Your task to perform on an android device: open app "Speedtest by Ookla" (install if not already installed) Image 0: 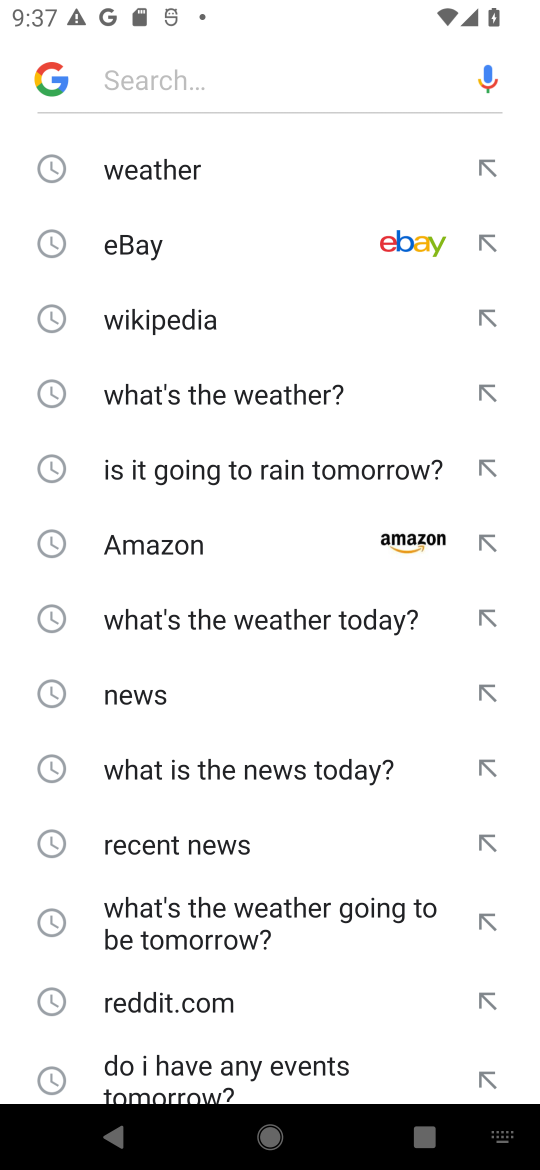
Step 0: press home button
Your task to perform on an android device: open app "Speedtest by Ookla" (install if not already installed) Image 1: 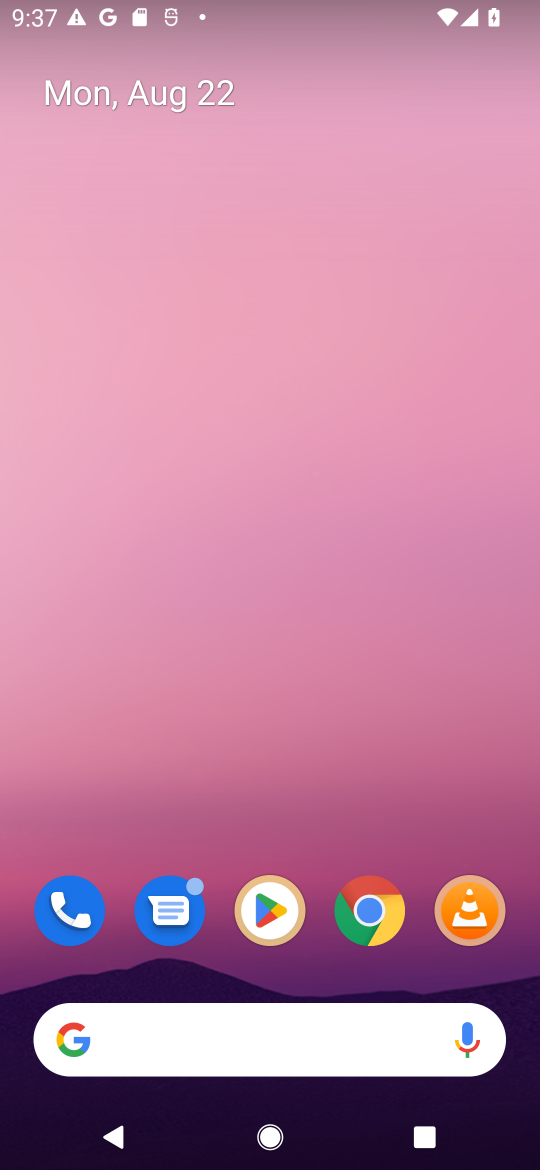
Step 1: click (275, 912)
Your task to perform on an android device: open app "Speedtest by Ookla" (install if not already installed) Image 2: 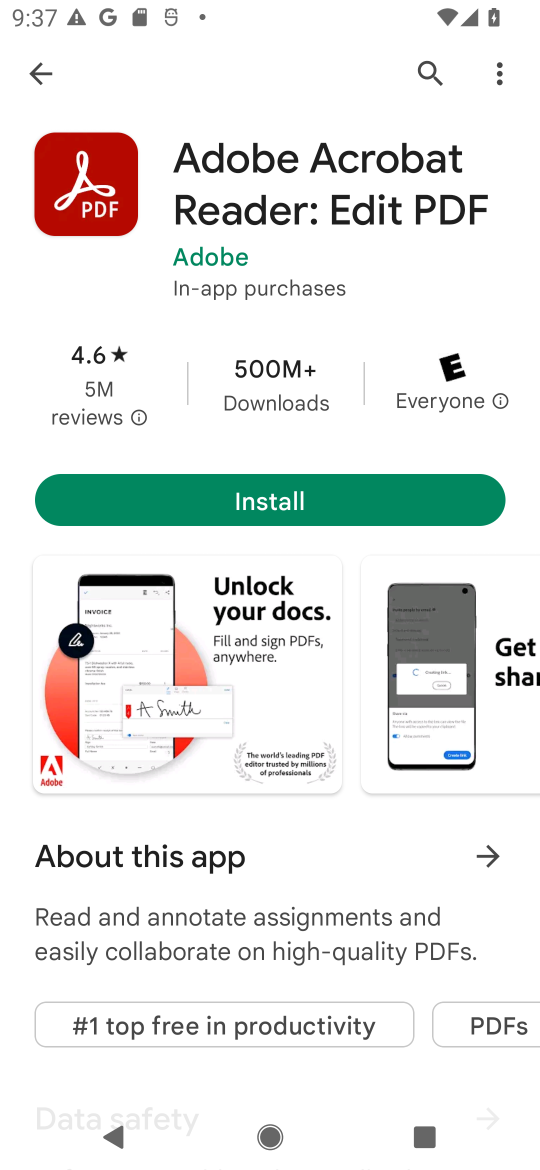
Step 2: click (419, 73)
Your task to perform on an android device: open app "Speedtest by Ookla" (install if not already installed) Image 3: 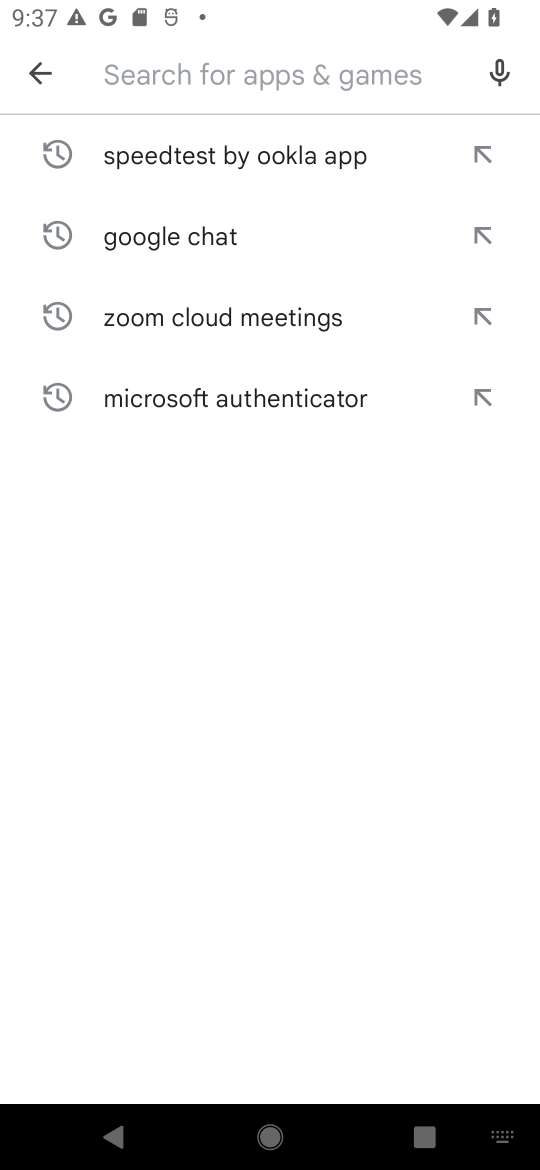
Step 3: type "Speedtest by Ookla"
Your task to perform on an android device: open app "Speedtest by Ookla" (install if not already installed) Image 4: 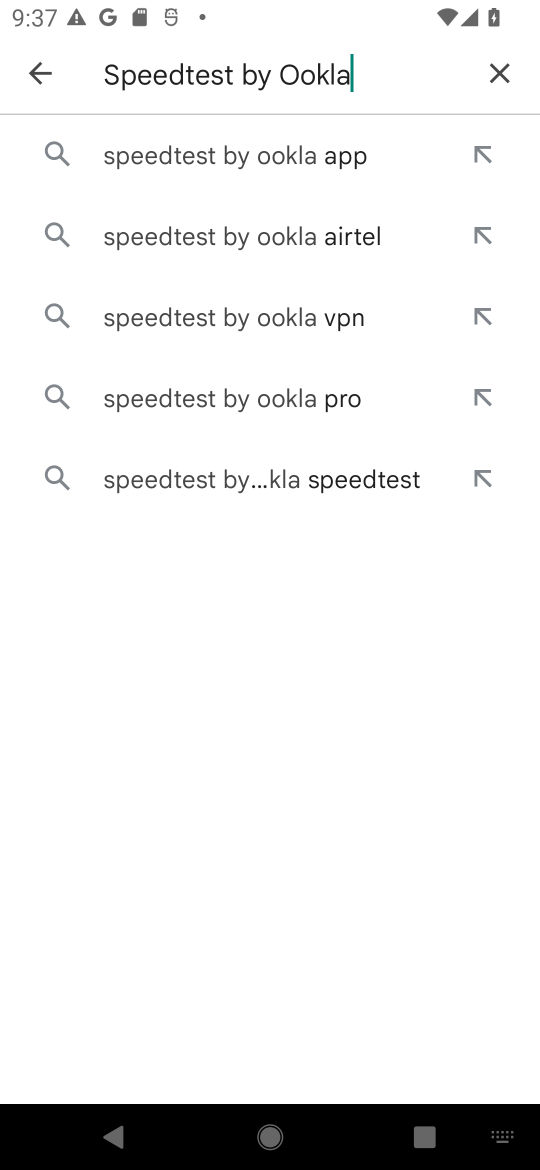
Step 4: click (283, 159)
Your task to perform on an android device: open app "Speedtest by Ookla" (install if not already installed) Image 5: 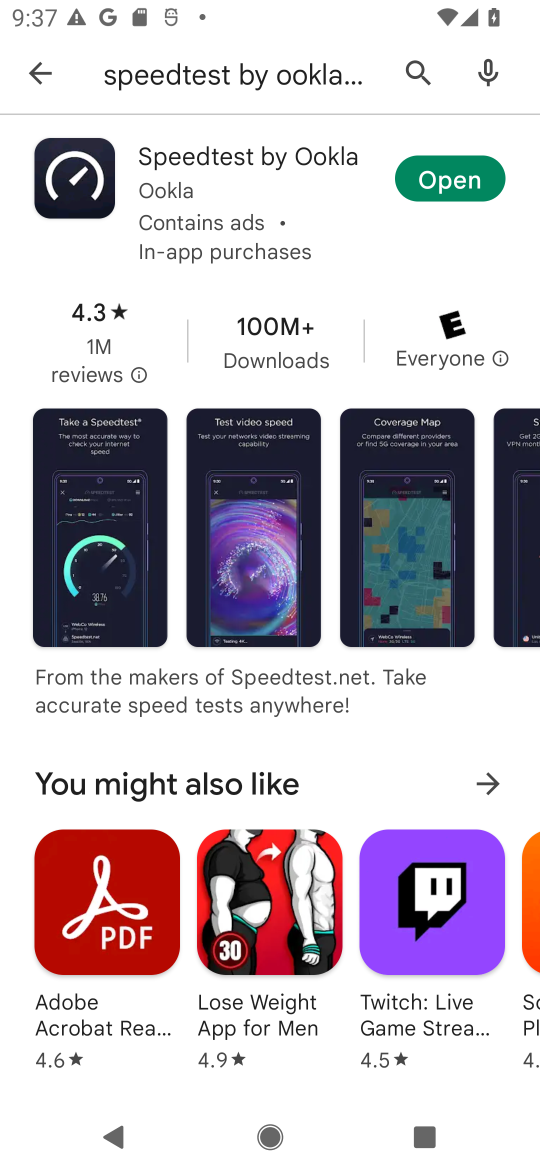
Step 5: click (413, 181)
Your task to perform on an android device: open app "Speedtest by Ookla" (install if not already installed) Image 6: 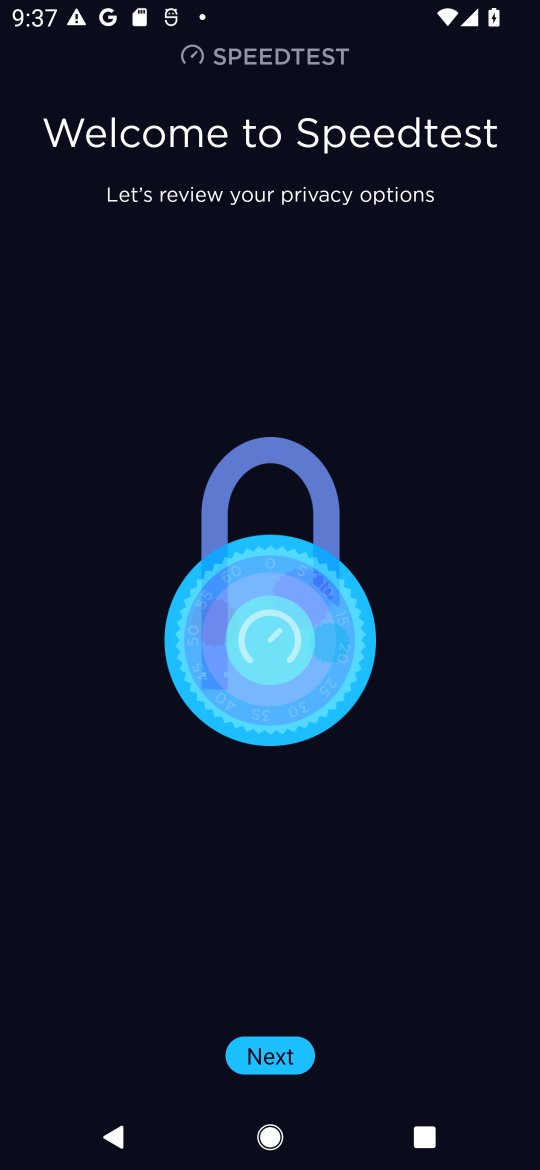
Step 6: task complete